Your task to perform on an android device: Go to calendar. Show me events next week Image 0: 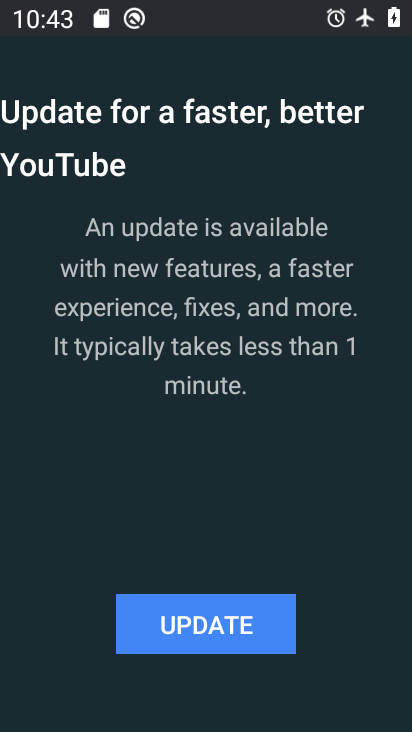
Step 0: press home button
Your task to perform on an android device: Go to calendar. Show me events next week Image 1: 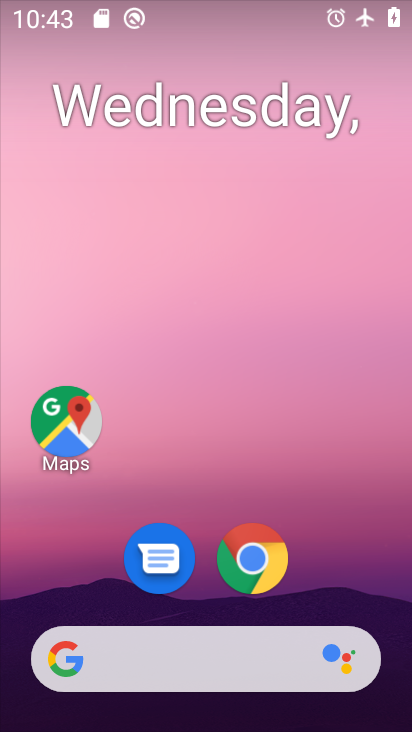
Step 1: drag from (364, 564) to (370, 101)
Your task to perform on an android device: Go to calendar. Show me events next week Image 2: 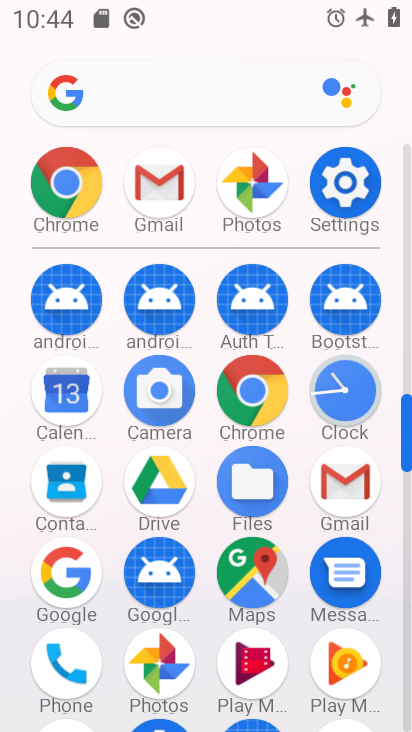
Step 2: click (73, 399)
Your task to perform on an android device: Go to calendar. Show me events next week Image 3: 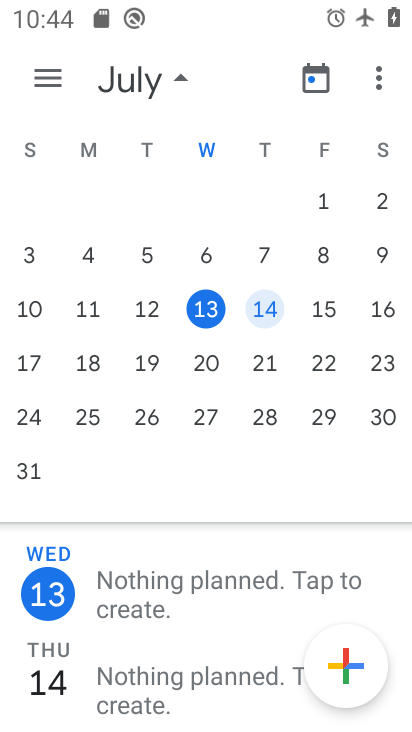
Step 3: drag from (246, 561) to (258, 231)
Your task to perform on an android device: Go to calendar. Show me events next week Image 4: 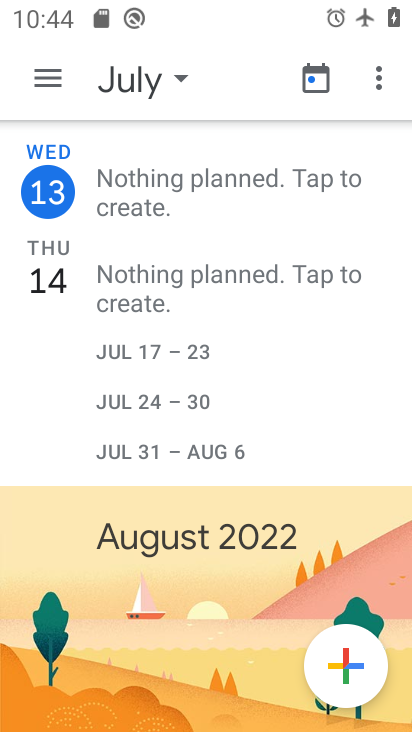
Step 4: click (181, 74)
Your task to perform on an android device: Go to calendar. Show me events next week Image 5: 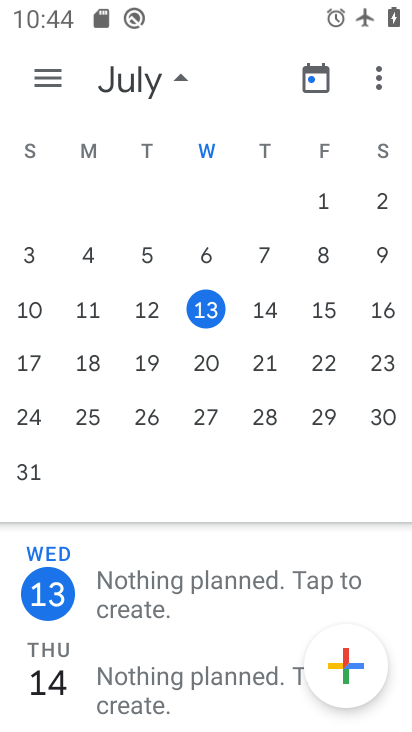
Step 5: click (92, 374)
Your task to perform on an android device: Go to calendar. Show me events next week Image 6: 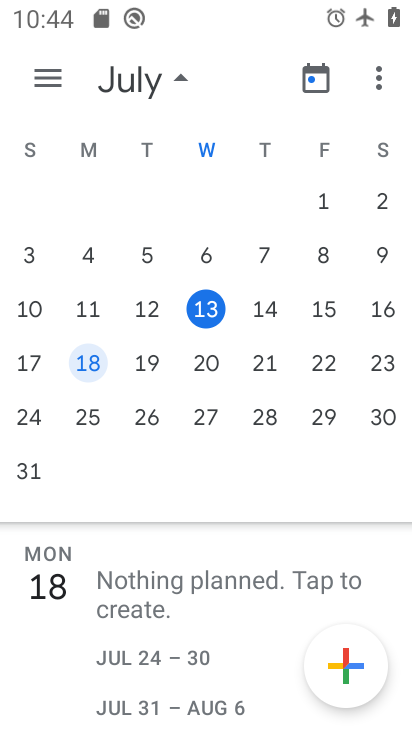
Step 6: task complete